Your task to perform on an android device: open app "Pinterest" (install if not already installed) Image 0: 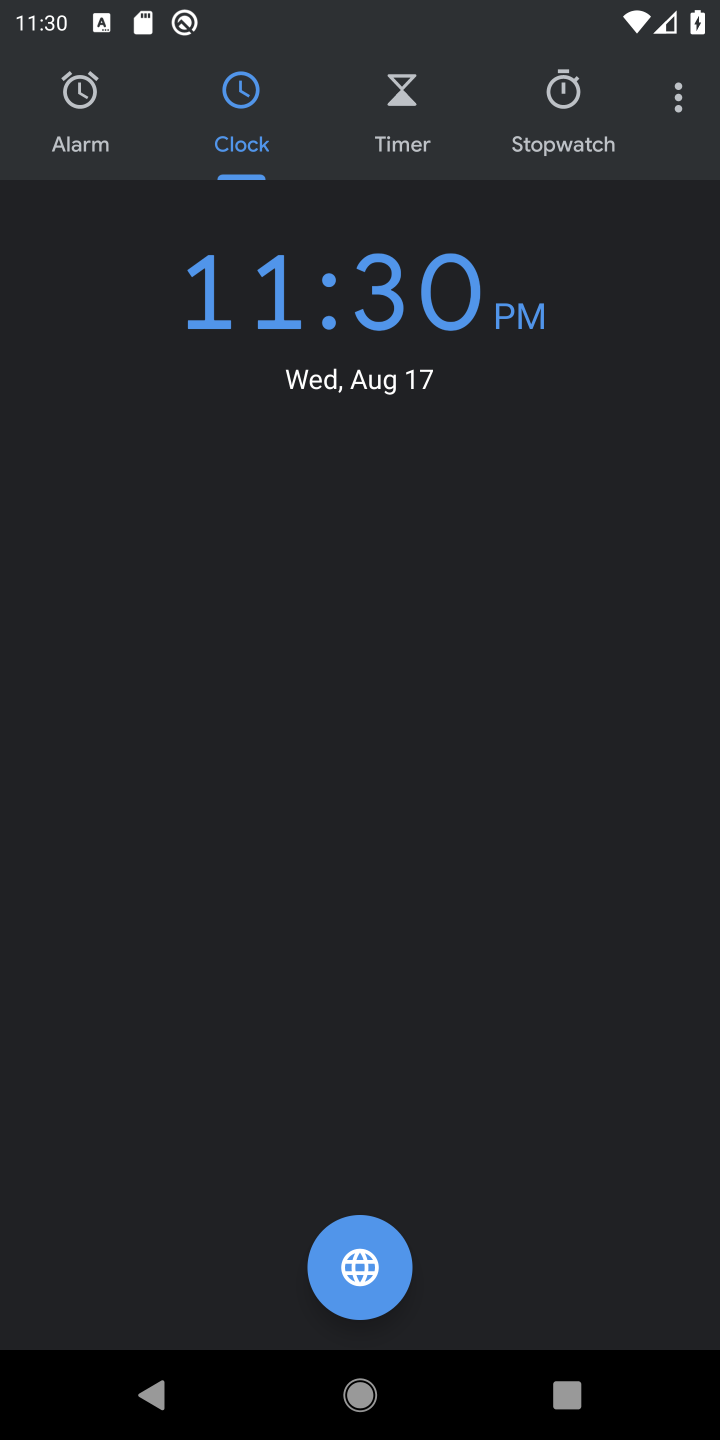
Step 0: press home button
Your task to perform on an android device: open app "Pinterest" (install if not already installed) Image 1: 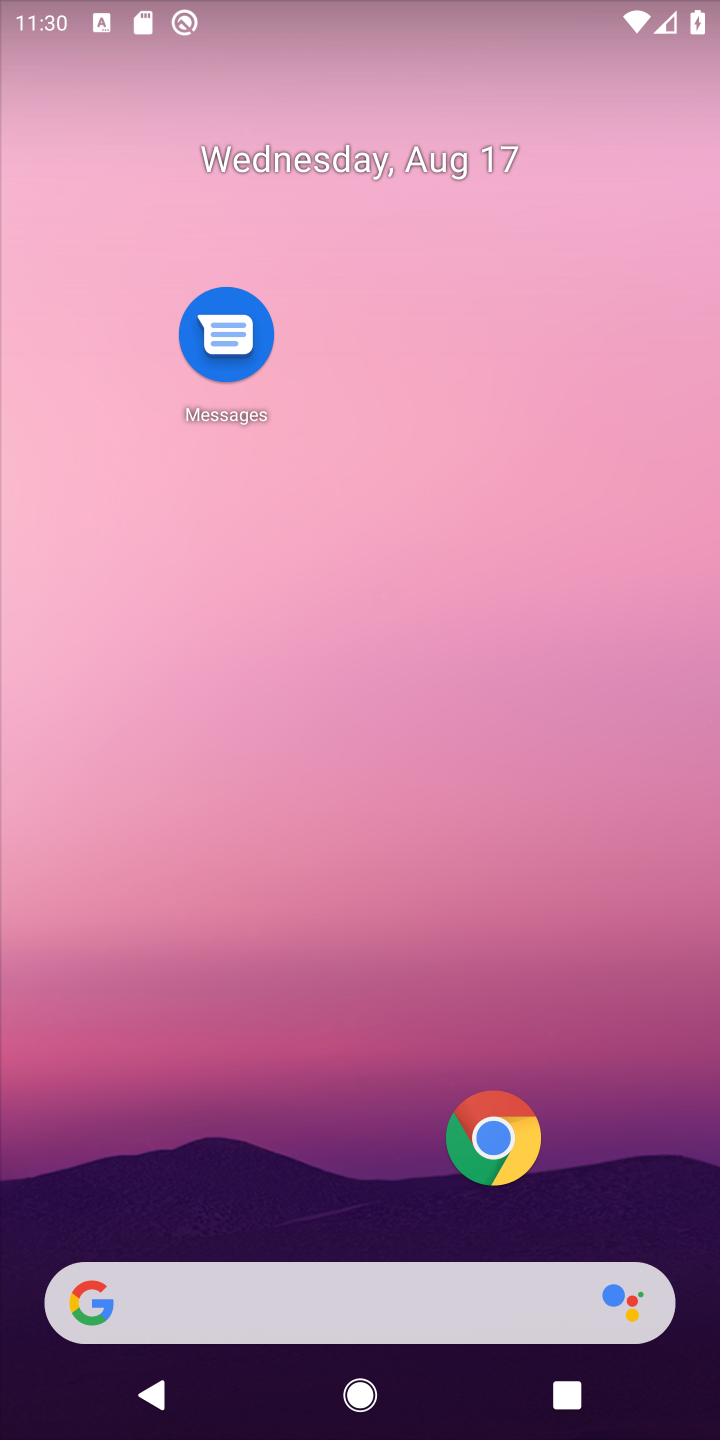
Step 1: drag from (394, 1252) to (413, 429)
Your task to perform on an android device: open app "Pinterest" (install if not already installed) Image 2: 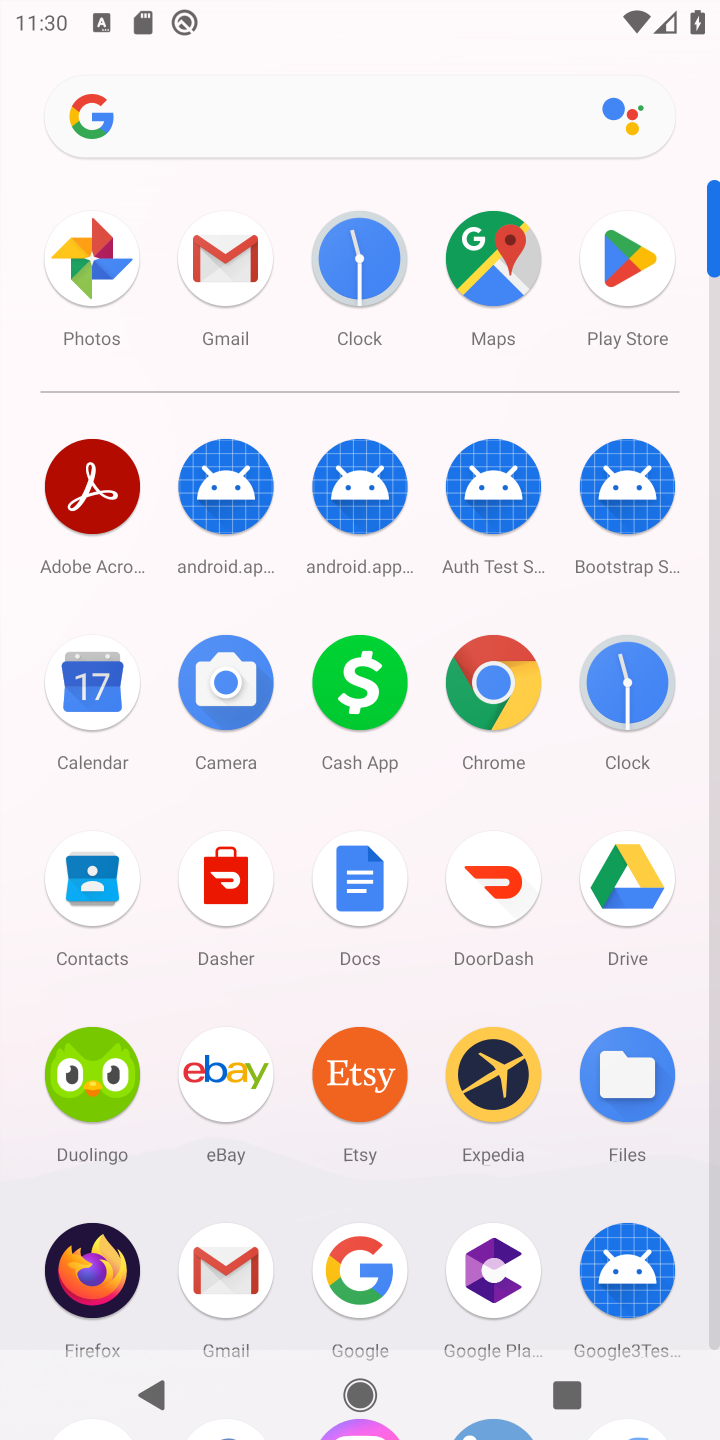
Step 2: click (640, 239)
Your task to perform on an android device: open app "Pinterest" (install if not already installed) Image 3: 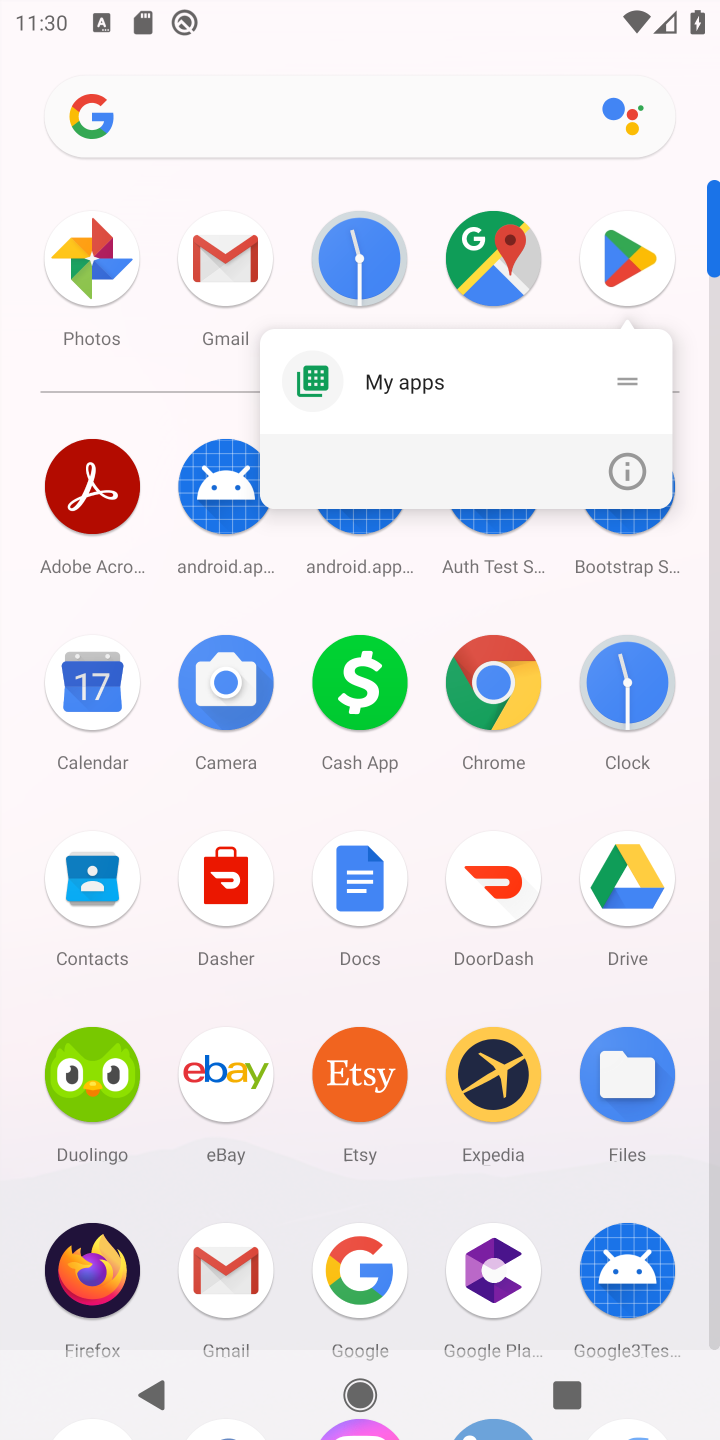
Step 3: click (633, 251)
Your task to perform on an android device: open app "Pinterest" (install if not already installed) Image 4: 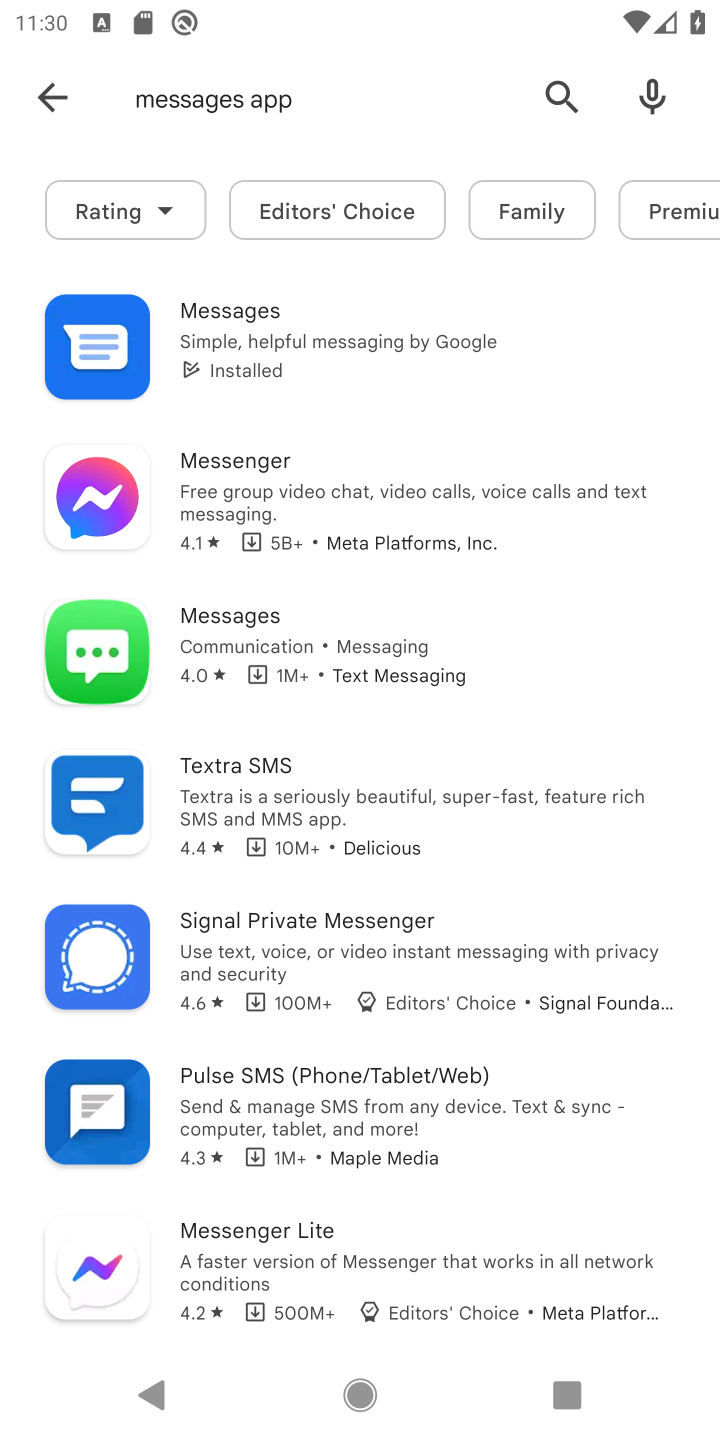
Step 4: click (57, 98)
Your task to perform on an android device: open app "Pinterest" (install if not already installed) Image 5: 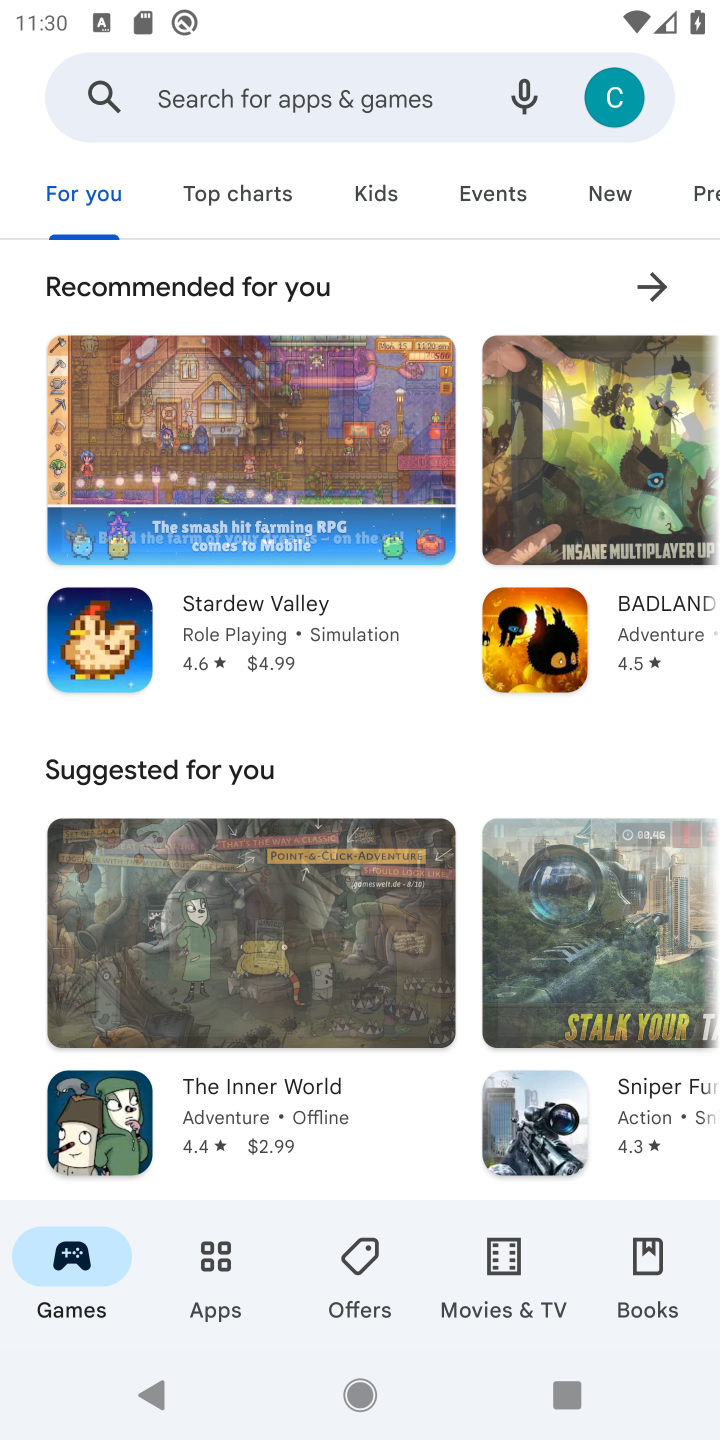
Step 5: click (288, 72)
Your task to perform on an android device: open app "Pinterest" (install if not already installed) Image 6: 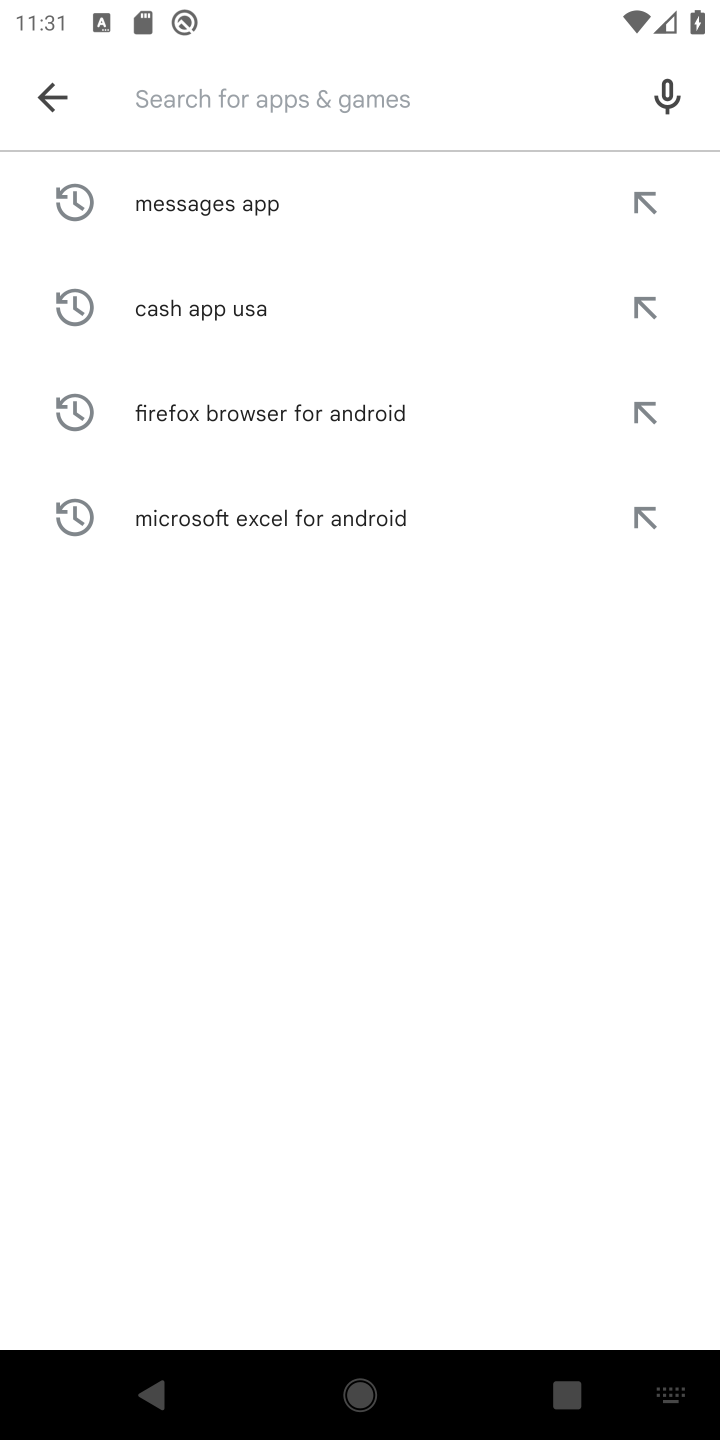
Step 6: type "Pinterest "
Your task to perform on an android device: open app "Pinterest" (install if not already installed) Image 7: 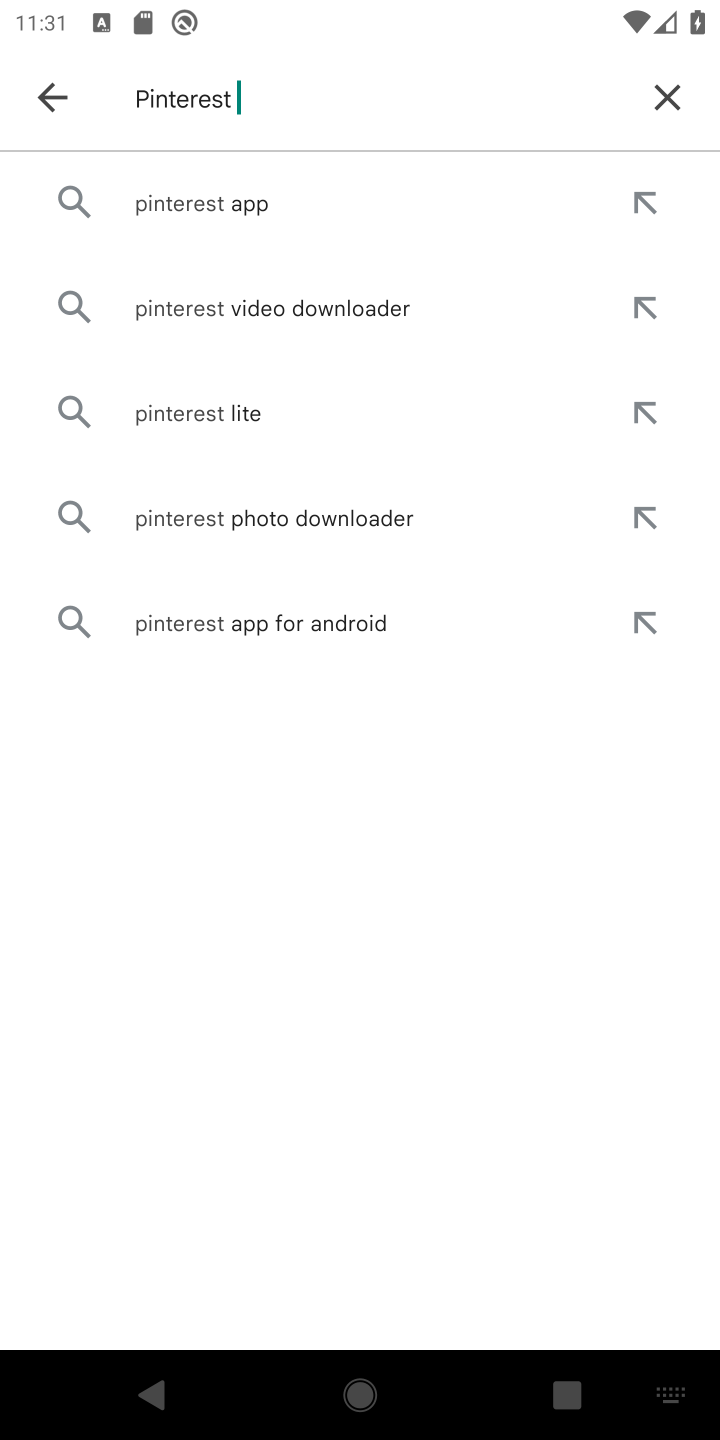
Step 7: click (239, 217)
Your task to perform on an android device: open app "Pinterest" (install if not already installed) Image 8: 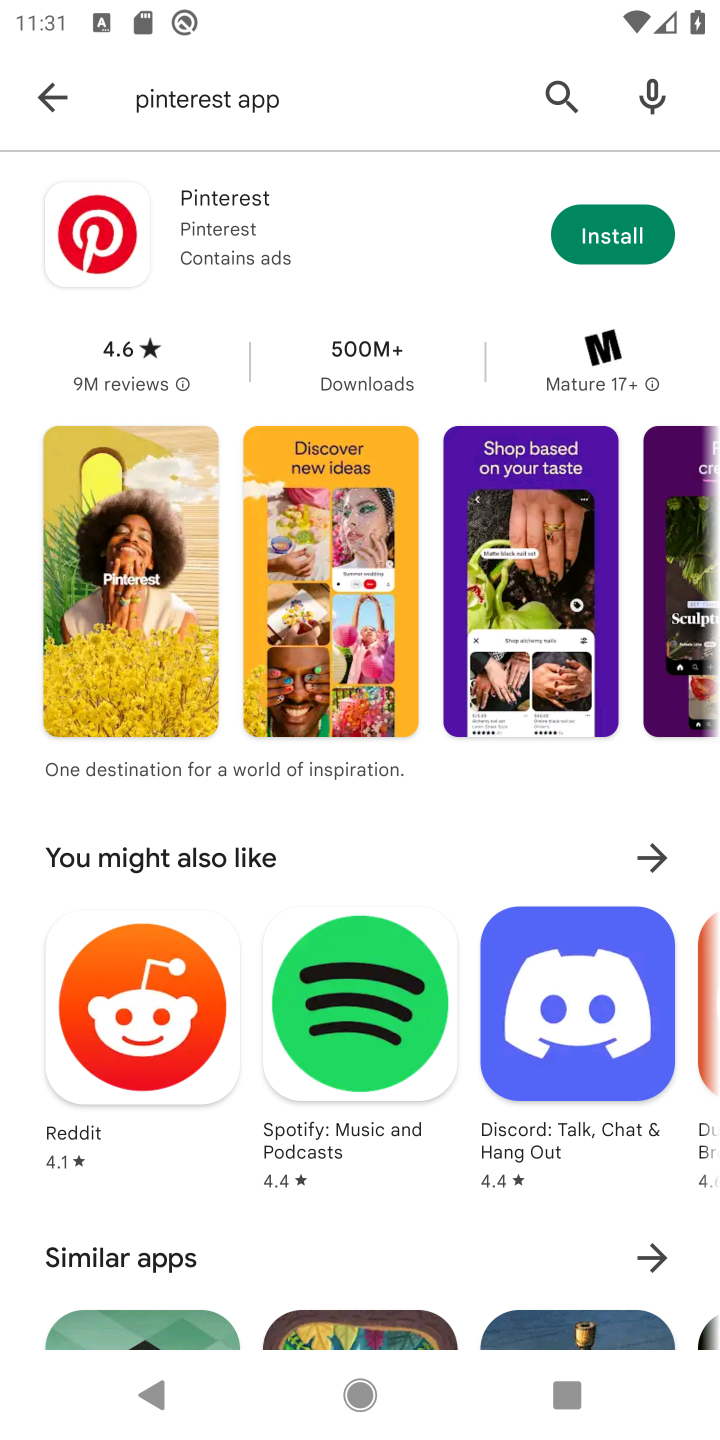
Step 8: click (579, 209)
Your task to perform on an android device: open app "Pinterest" (install if not already installed) Image 9: 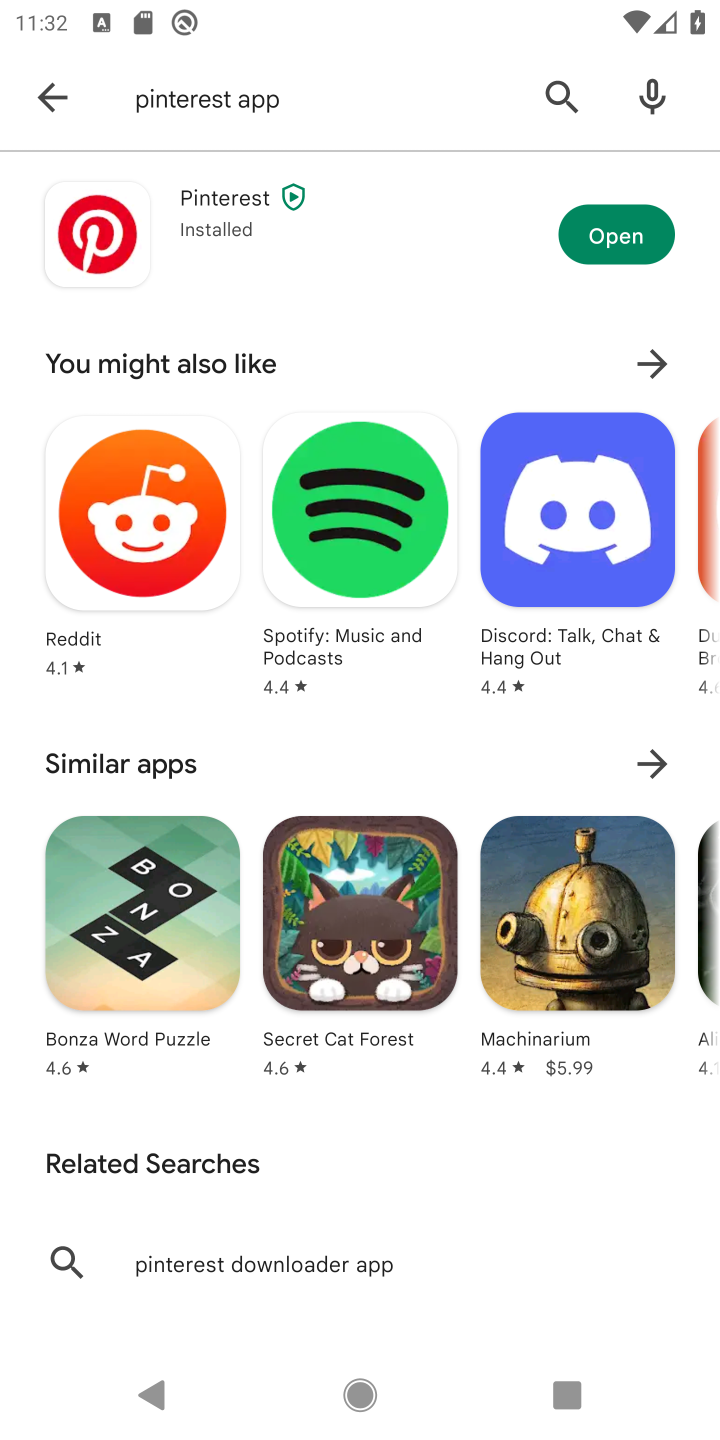
Step 9: click (627, 224)
Your task to perform on an android device: open app "Pinterest" (install if not already installed) Image 10: 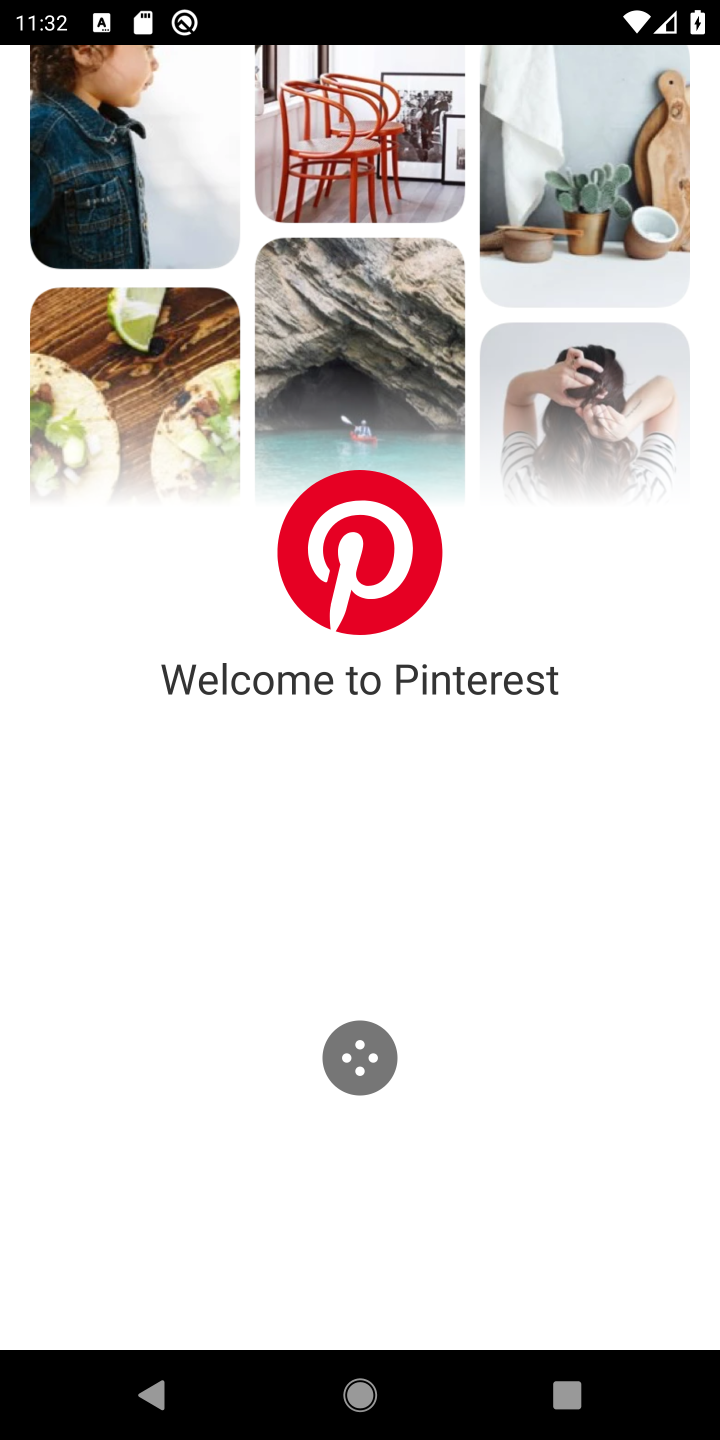
Step 10: task complete